Your task to perform on an android device: Open the clock Image 0: 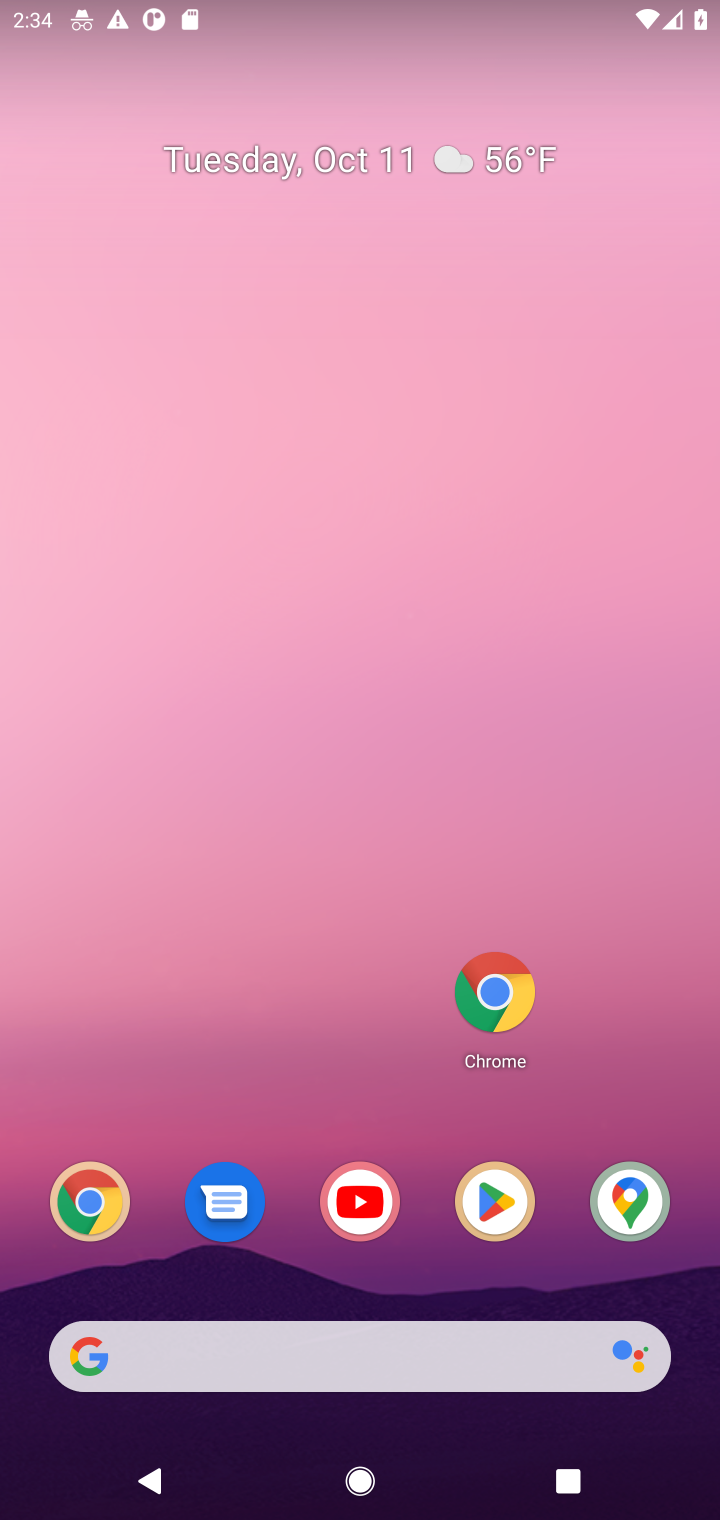
Step 0: drag from (416, 1331) to (649, 198)
Your task to perform on an android device: Open the clock Image 1: 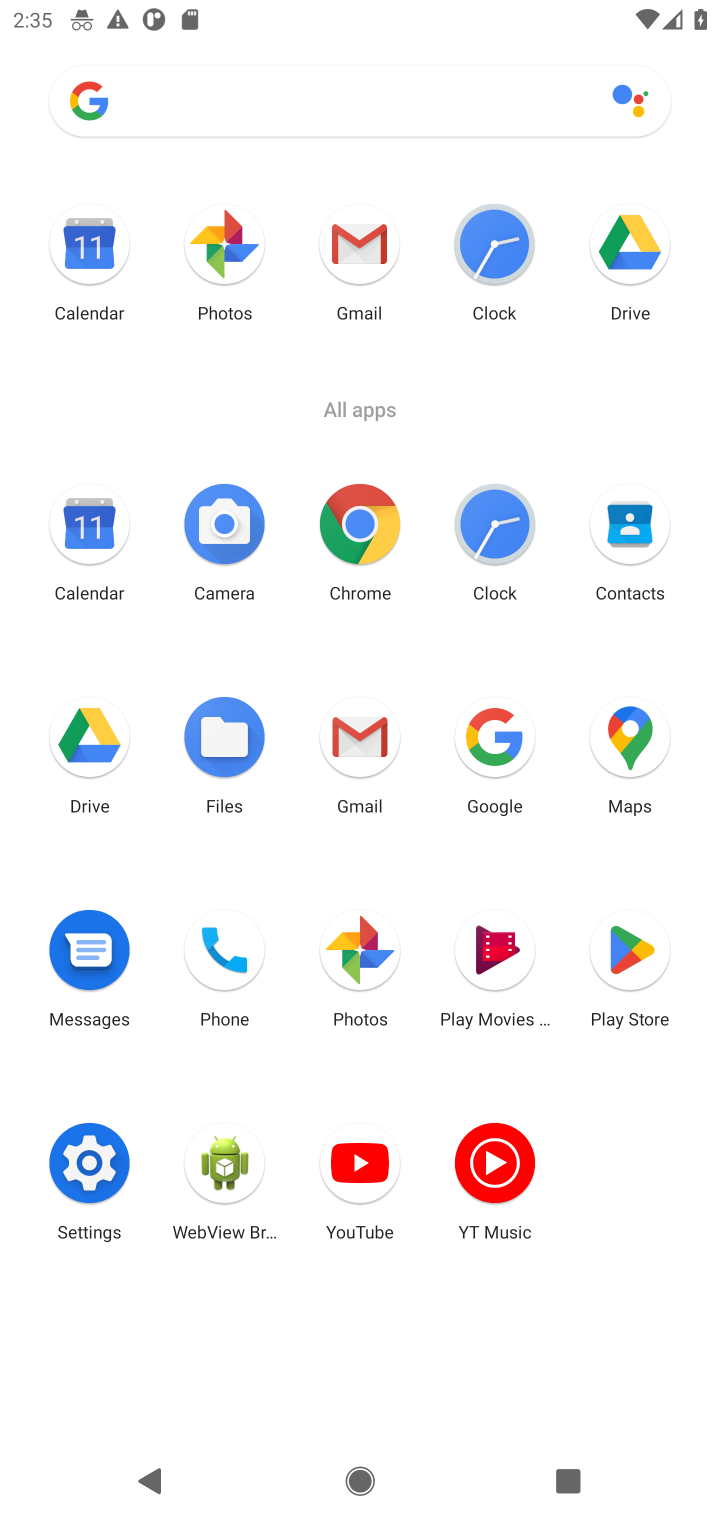
Step 1: click (495, 532)
Your task to perform on an android device: Open the clock Image 2: 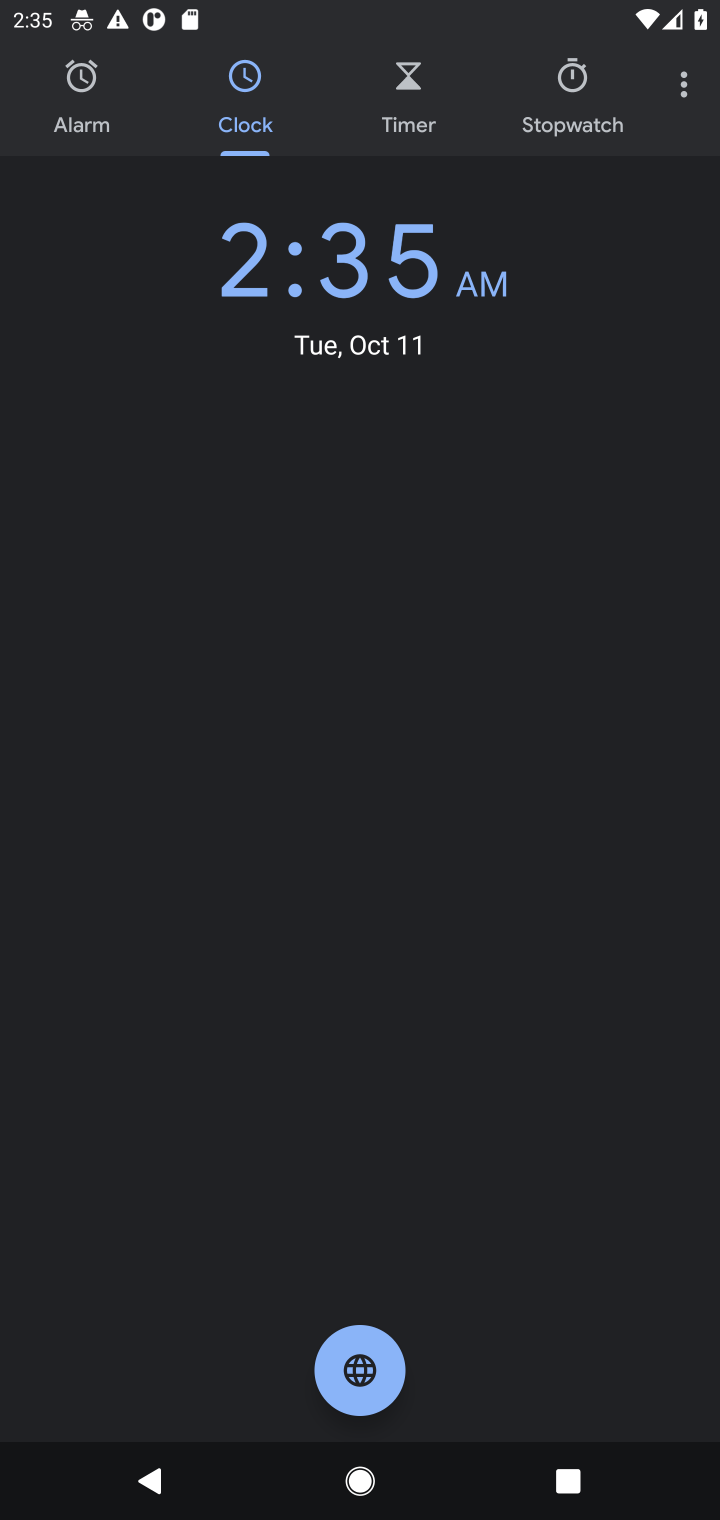
Step 2: task complete